Your task to perform on an android device: change timer sound Image 0: 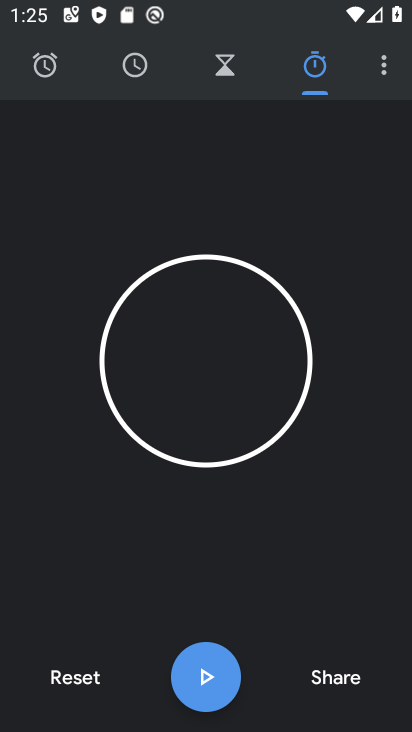
Step 0: press home button
Your task to perform on an android device: change timer sound Image 1: 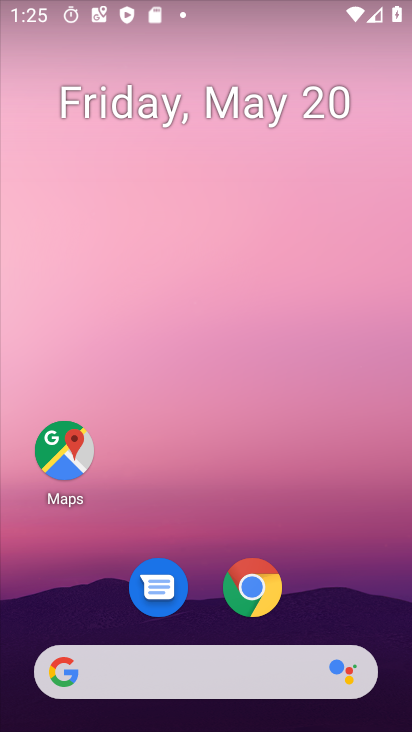
Step 1: drag from (338, 532) to (314, 158)
Your task to perform on an android device: change timer sound Image 2: 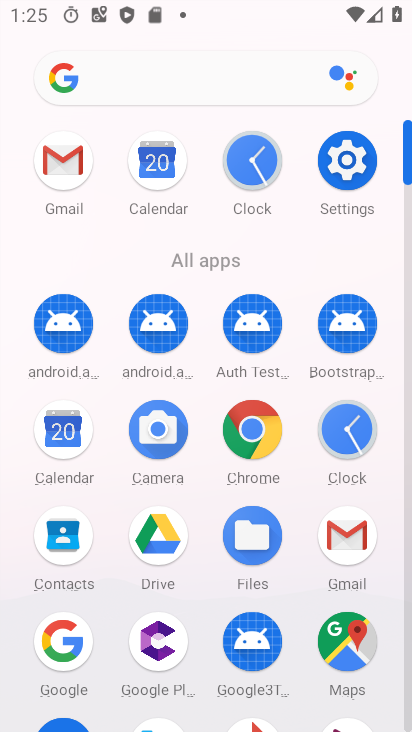
Step 2: click (255, 160)
Your task to perform on an android device: change timer sound Image 3: 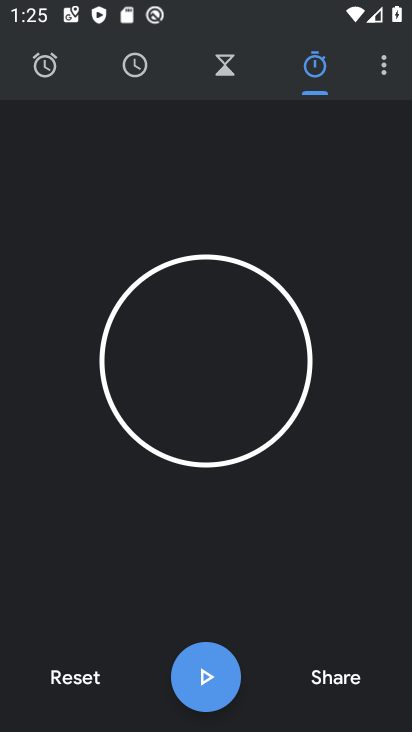
Step 3: click (389, 56)
Your task to perform on an android device: change timer sound Image 4: 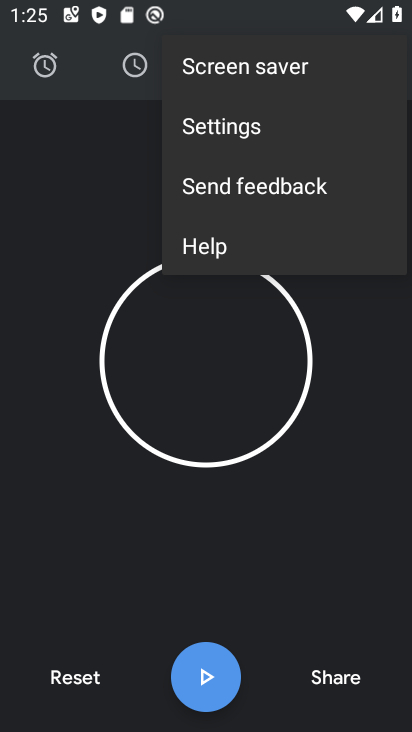
Step 4: click (276, 135)
Your task to perform on an android device: change timer sound Image 5: 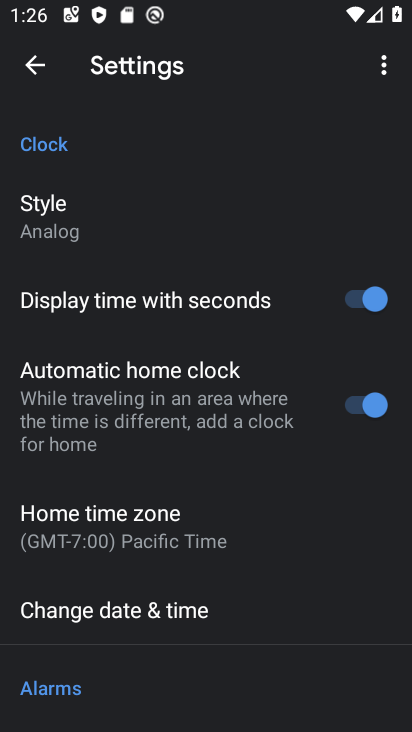
Step 5: drag from (161, 547) to (338, 126)
Your task to perform on an android device: change timer sound Image 6: 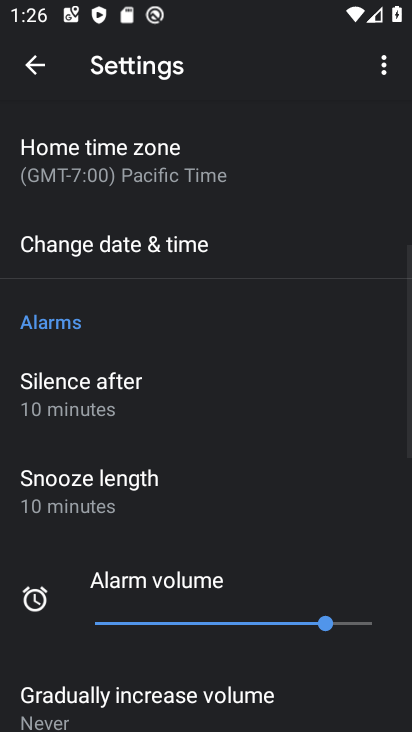
Step 6: drag from (200, 453) to (295, 204)
Your task to perform on an android device: change timer sound Image 7: 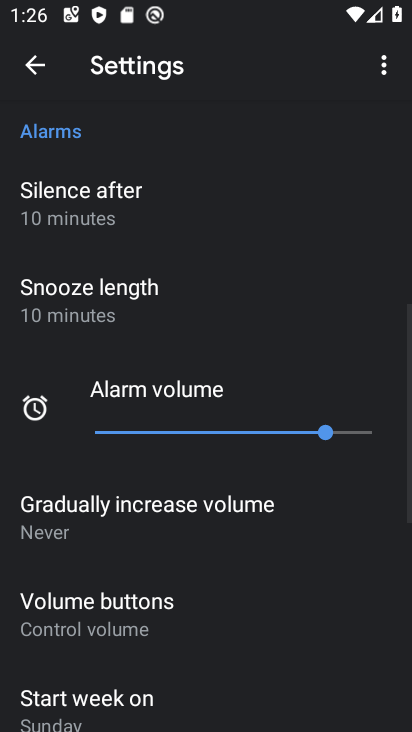
Step 7: drag from (155, 532) to (282, 193)
Your task to perform on an android device: change timer sound Image 8: 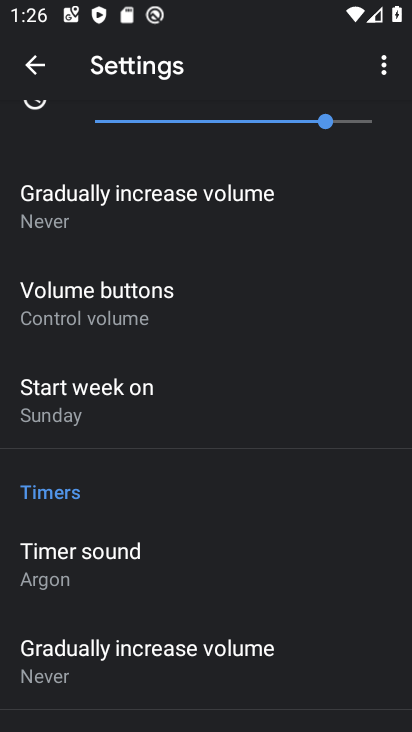
Step 8: click (125, 542)
Your task to perform on an android device: change timer sound Image 9: 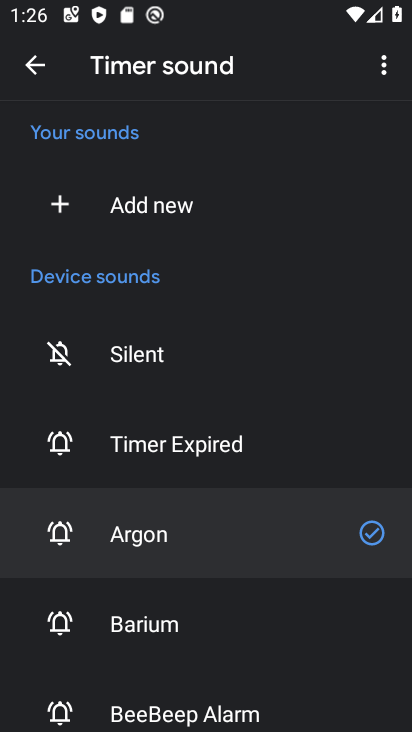
Step 9: click (234, 433)
Your task to perform on an android device: change timer sound Image 10: 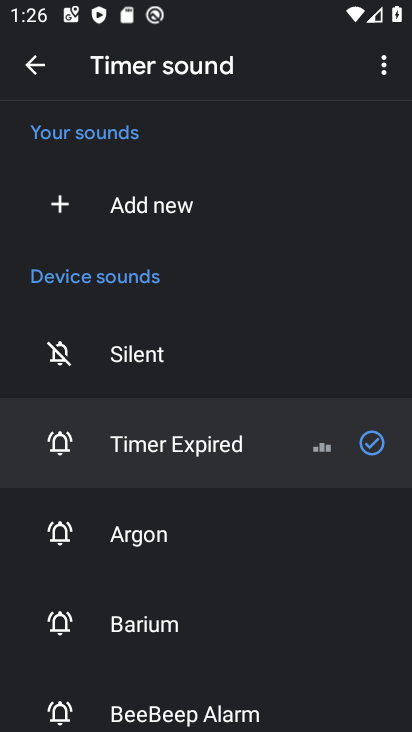
Step 10: task complete